Your task to perform on an android device: Open maps Image 0: 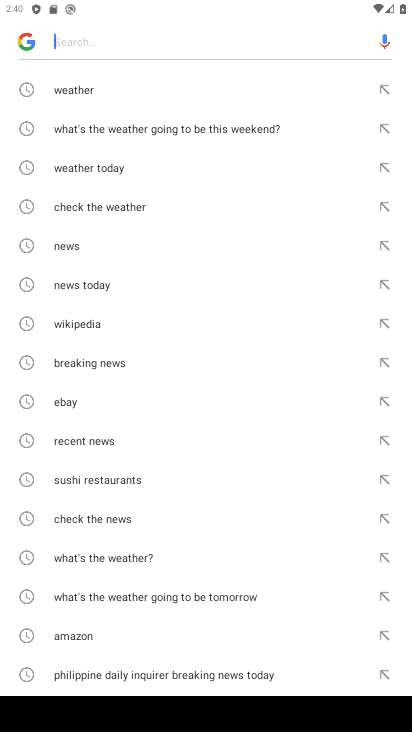
Step 0: press back button
Your task to perform on an android device: Open maps Image 1: 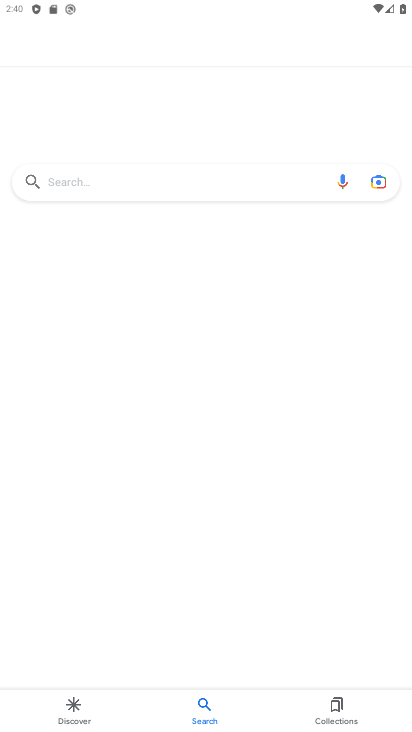
Step 1: press back button
Your task to perform on an android device: Open maps Image 2: 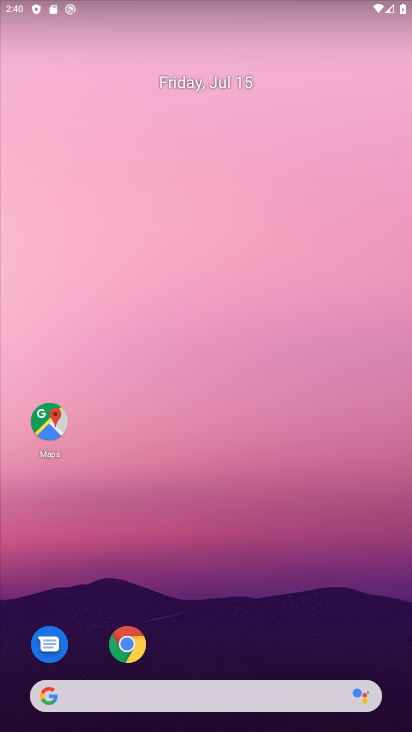
Step 2: click (42, 411)
Your task to perform on an android device: Open maps Image 3: 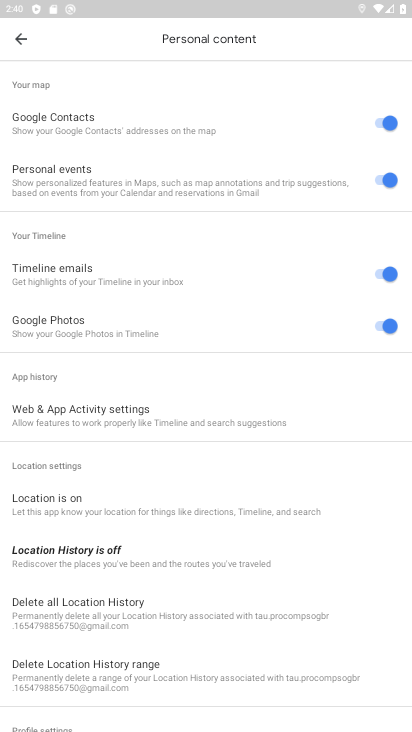
Step 3: click (15, 37)
Your task to perform on an android device: Open maps Image 4: 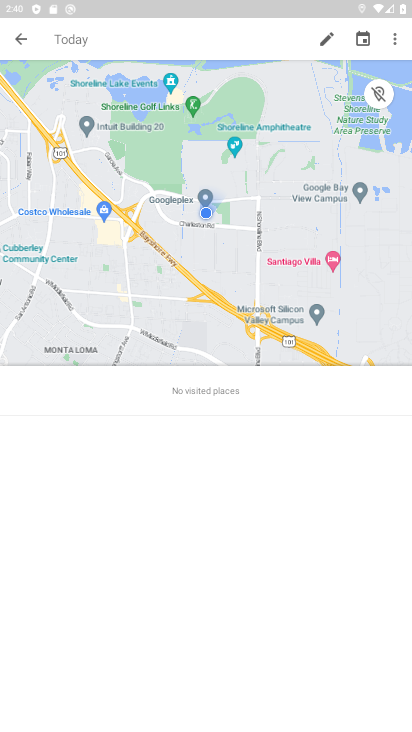
Step 4: task complete